Your task to perform on an android device: toggle data saver in the chrome app Image 0: 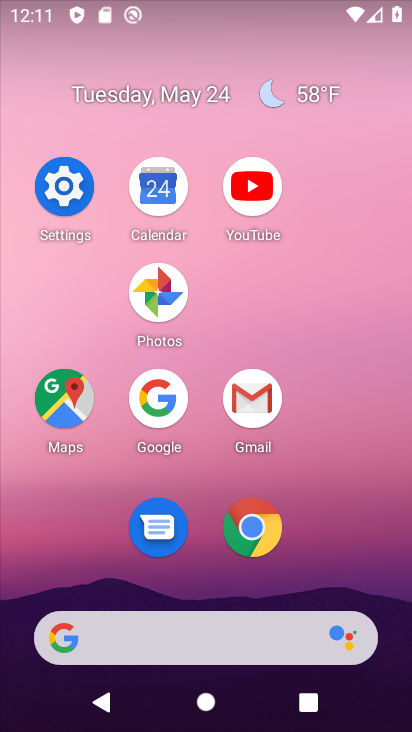
Step 0: click (267, 519)
Your task to perform on an android device: toggle data saver in the chrome app Image 1: 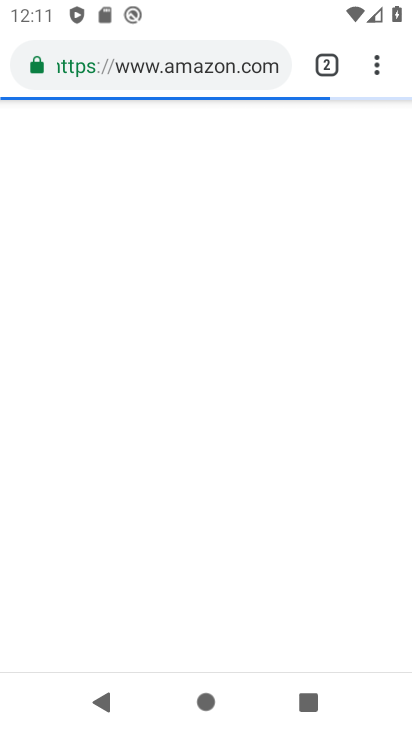
Step 1: click (378, 59)
Your task to perform on an android device: toggle data saver in the chrome app Image 2: 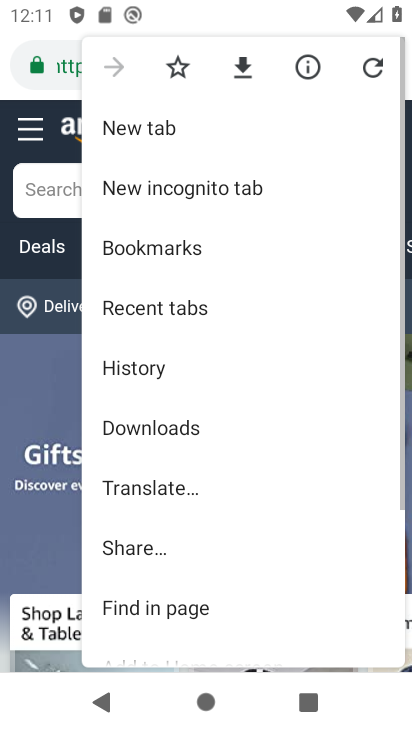
Step 2: drag from (173, 514) to (207, 215)
Your task to perform on an android device: toggle data saver in the chrome app Image 3: 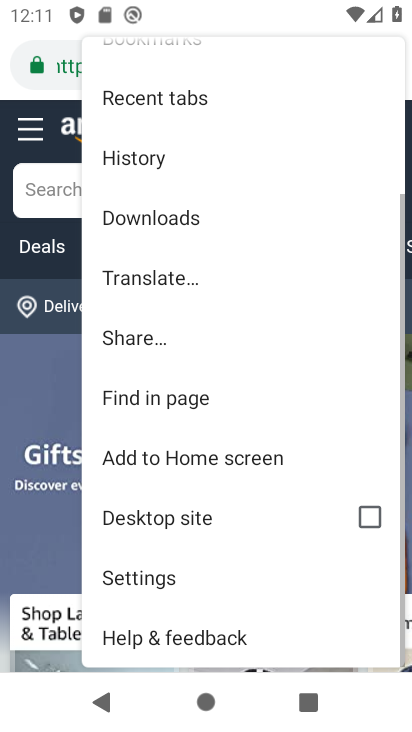
Step 3: click (190, 566)
Your task to perform on an android device: toggle data saver in the chrome app Image 4: 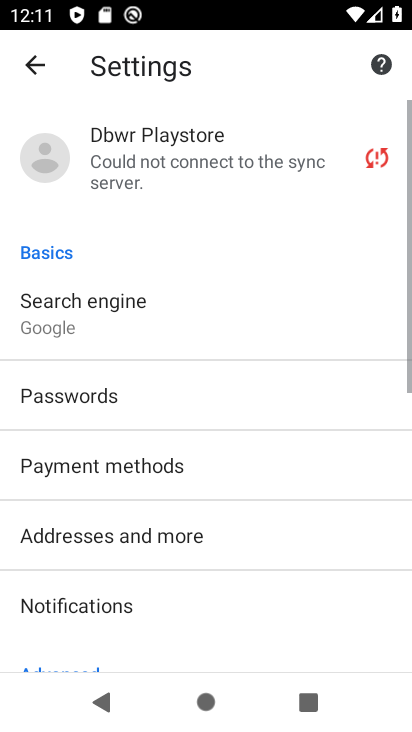
Step 4: drag from (187, 559) to (208, 192)
Your task to perform on an android device: toggle data saver in the chrome app Image 5: 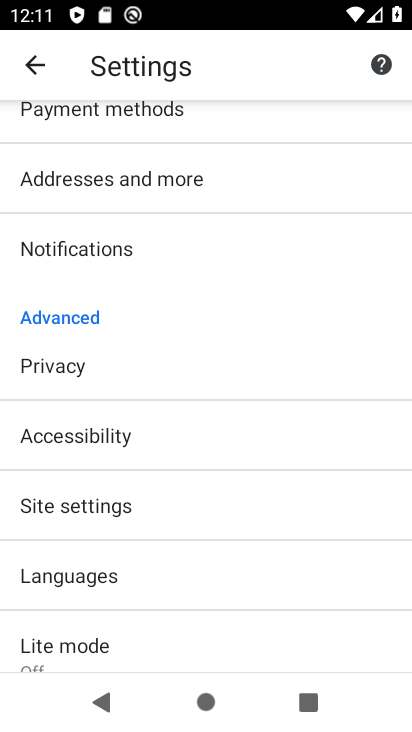
Step 5: drag from (209, 644) to (245, 319)
Your task to perform on an android device: toggle data saver in the chrome app Image 6: 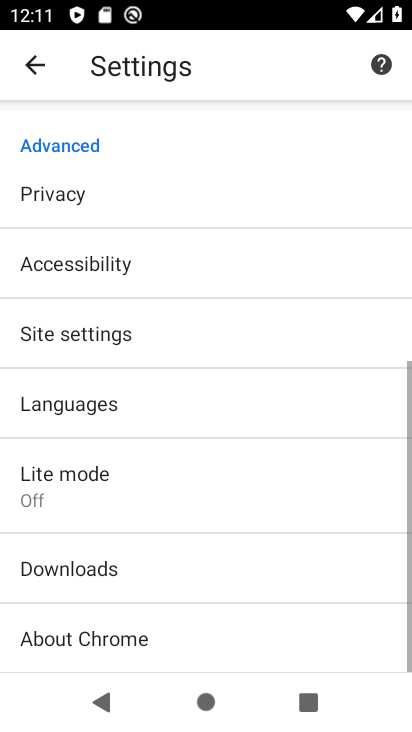
Step 6: click (236, 462)
Your task to perform on an android device: toggle data saver in the chrome app Image 7: 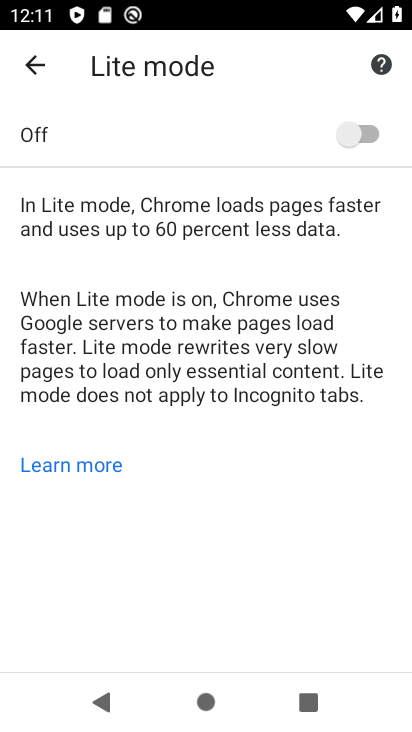
Step 7: click (367, 146)
Your task to perform on an android device: toggle data saver in the chrome app Image 8: 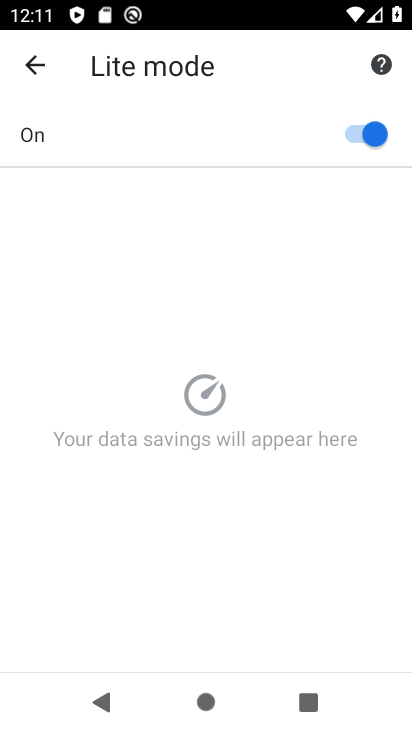
Step 8: task complete